Your task to perform on an android device: all mails in gmail Image 0: 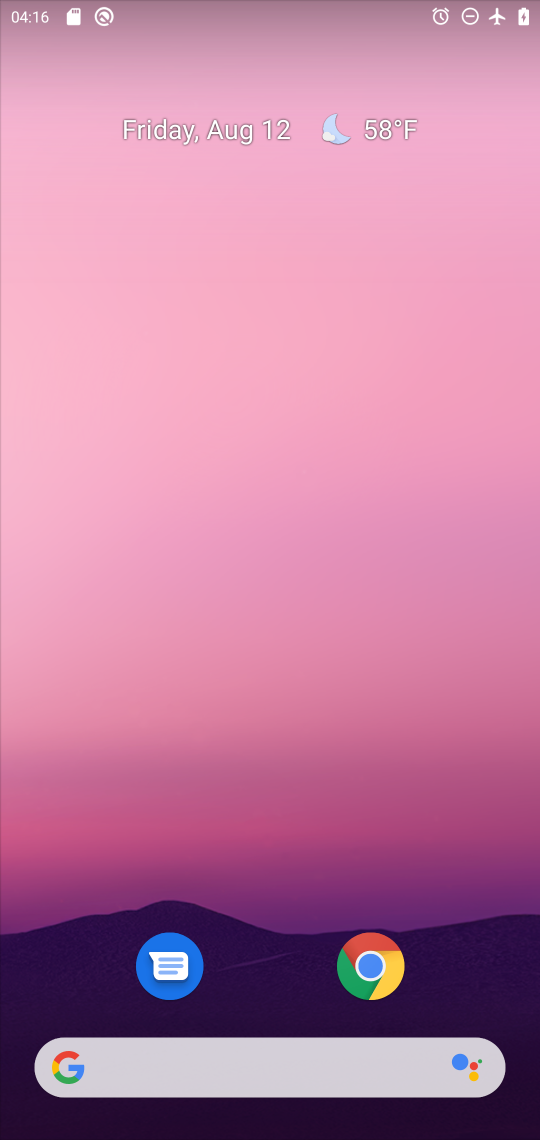
Step 0: drag from (299, 801) to (326, 54)
Your task to perform on an android device: all mails in gmail Image 1: 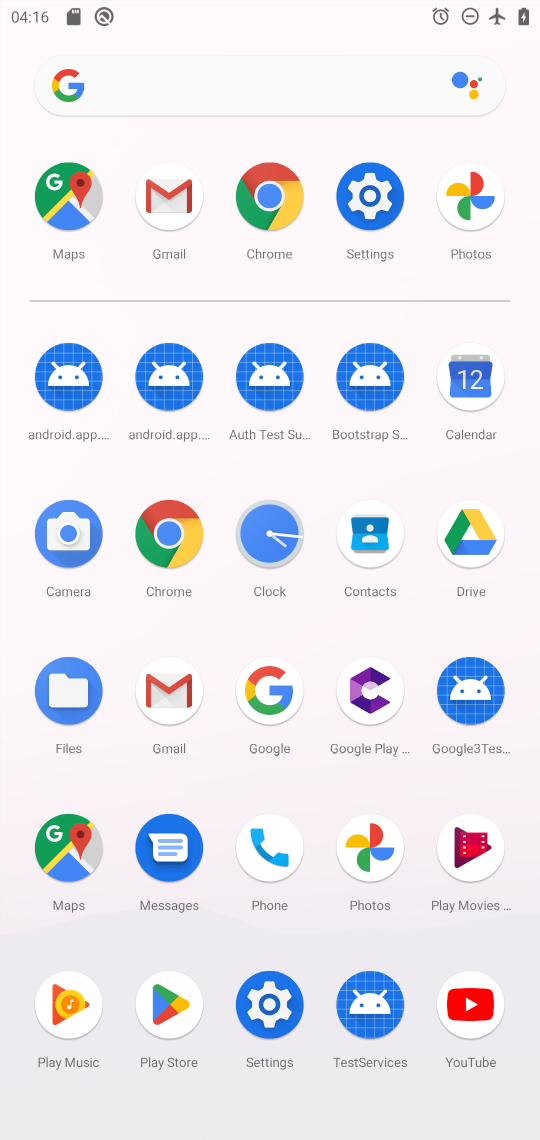
Step 1: click (153, 685)
Your task to perform on an android device: all mails in gmail Image 2: 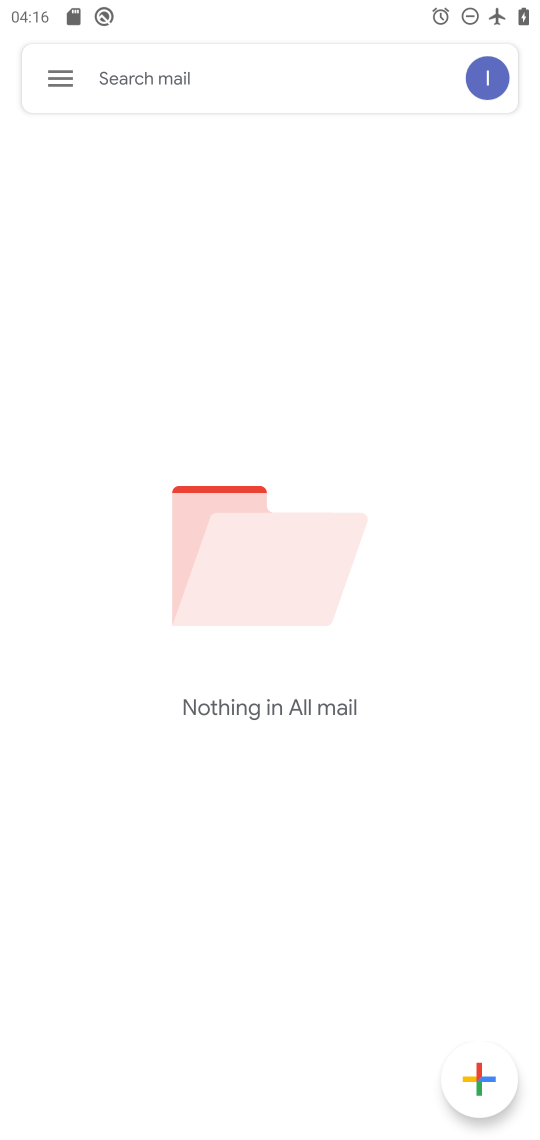
Step 2: click (69, 63)
Your task to perform on an android device: all mails in gmail Image 3: 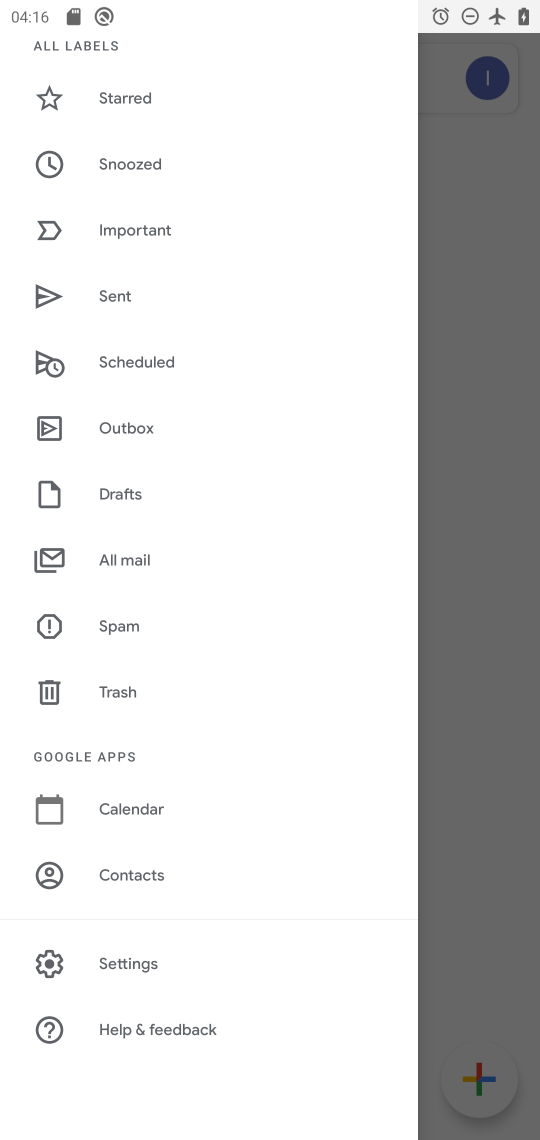
Step 3: click (121, 562)
Your task to perform on an android device: all mails in gmail Image 4: 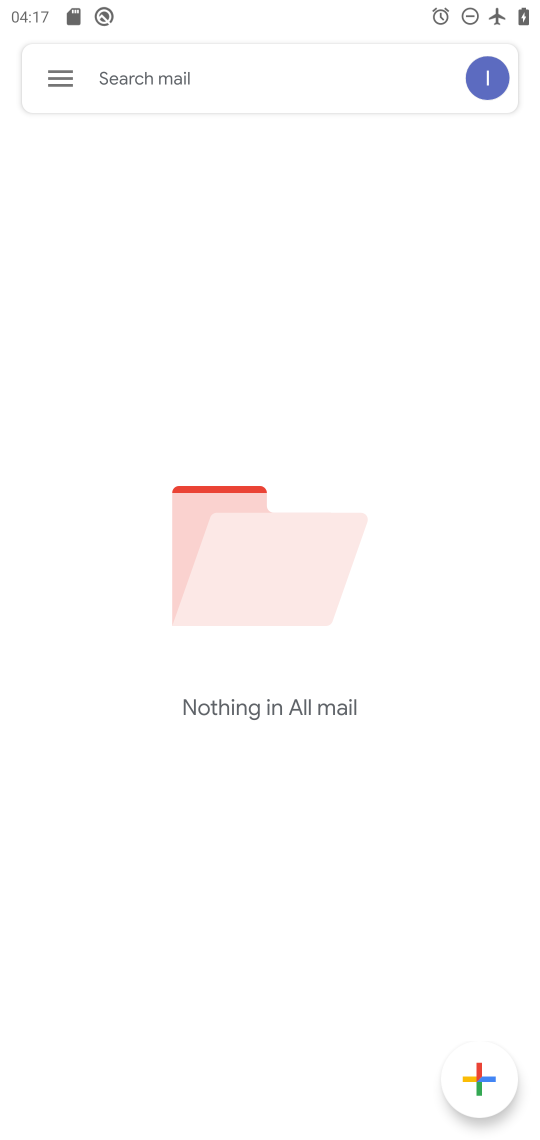
Step 4: task complete